Your task to perform on an android device: Open accessibility settings Image 0: 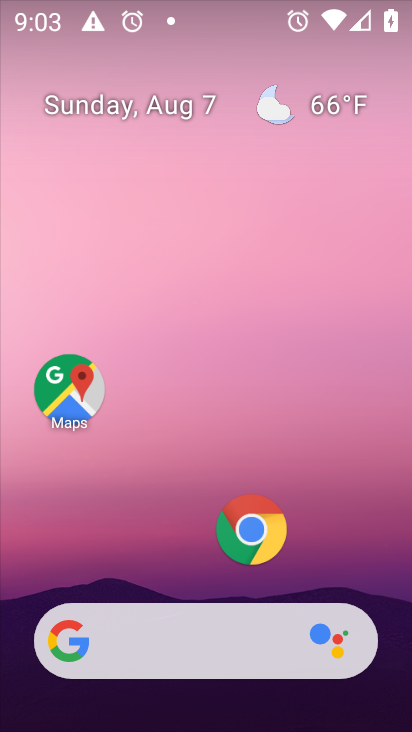
Step 0: click (227, 463)
Your task to perform on an android device: Open accessibility settings Image 1: 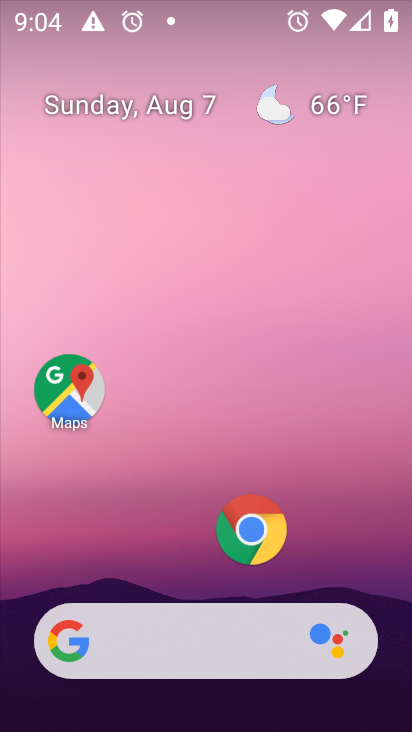
Step 1: drag from (170, 581) to (164, 150)
Your task to perform on an android device: Open accessibility settings Image 2: 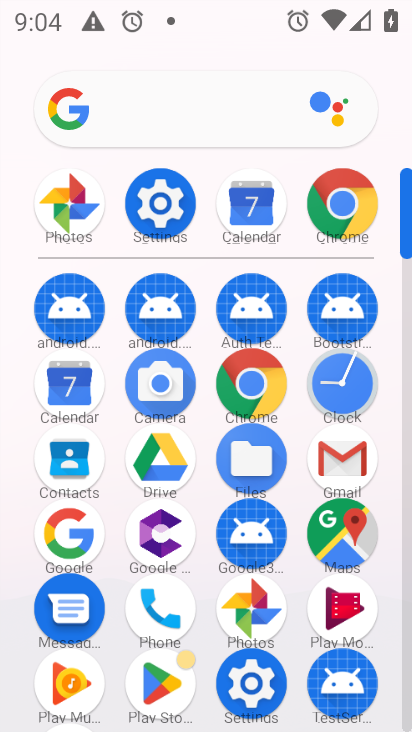
Step 2: click (169, 209)
Your task to perform on an android device: Open accessibility settings Image 3: 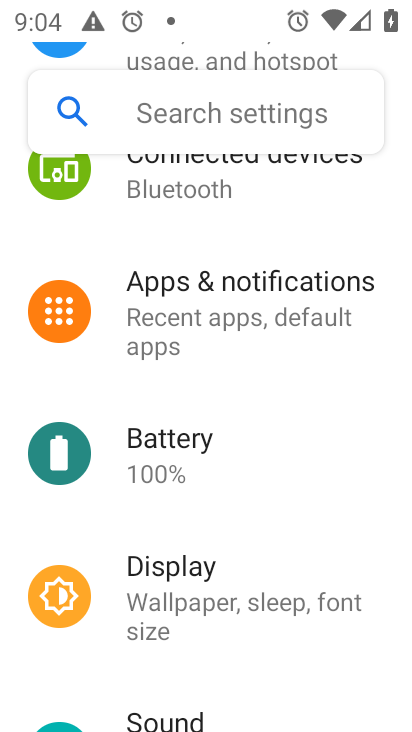
Step 3: drag from (205, 518) to (212, 243)
Your task to perform on an android device: Open accessibility settings Image 4: 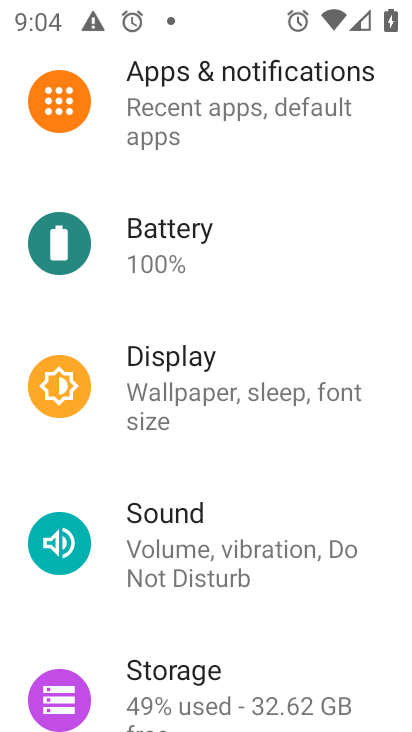
Step 4: drag from (181, 601) to (232, 195)
Your task to perform on an android device: Open accessibility settings Image 5: 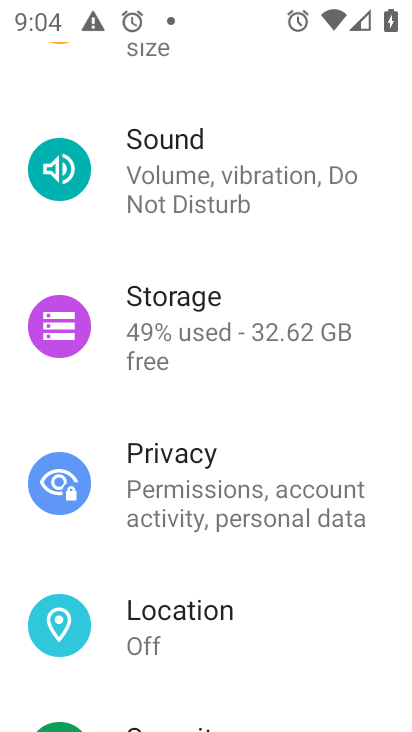
Step 5: drag from (212, 568) to (230, 247)
Your task to perform on an android device: Open accessibility settings Image 6: 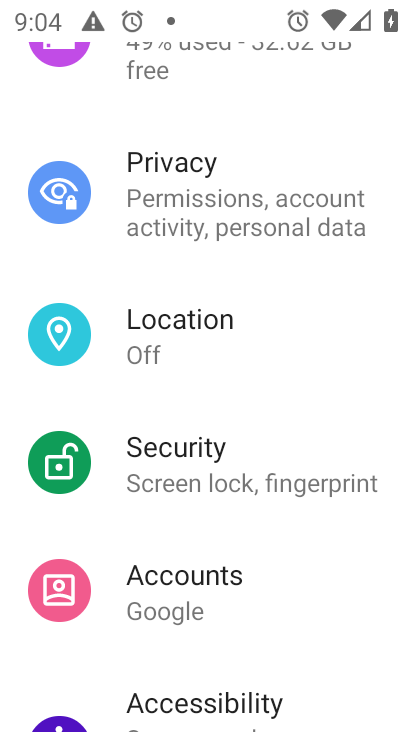
Step 6: drag from (197, 650) to (220, 424)
Your task to perform on an android device: Open accessibility settings Image 7: 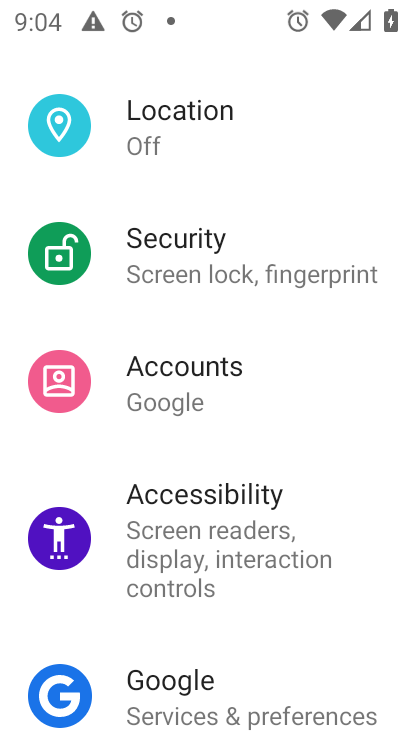
Step 7: click (180, 537)
Your task to perform on an android device: Open accessibility settings Image 8: 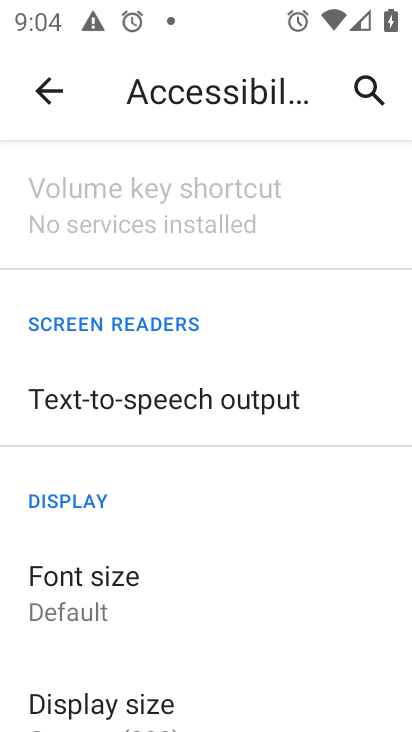
Step 8: task complete